Your task to perform on an android device: Open the stopwatch Image 0: 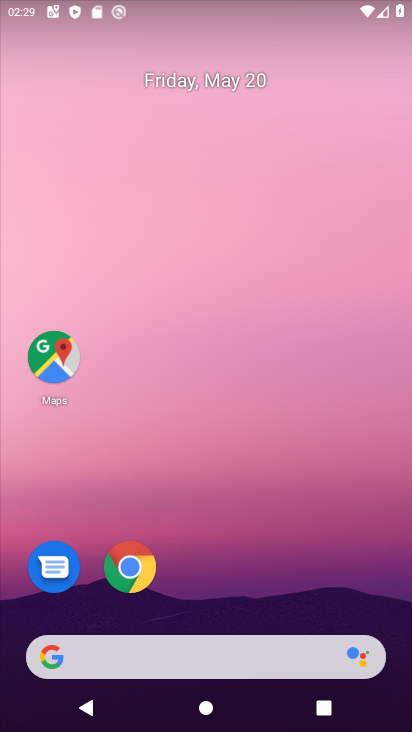
Step 0: drag from (224, 518) to (262, 14)
Your task to perform on an android device: Open the stopwatch Image 1: 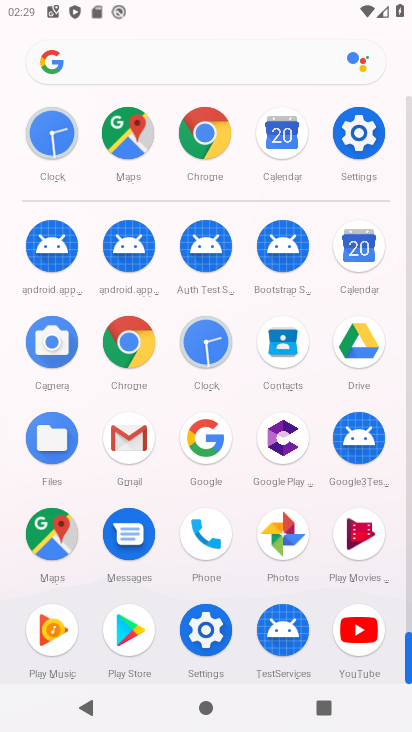
Step 1: drag from (11, 402) to (11, 232)
Your task to perform on an android device: Open the stopwatch Image 2: 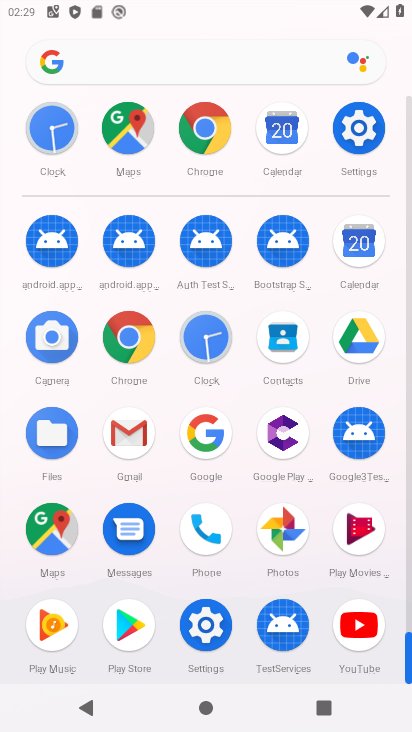
Step 2: click (201, 332)
Your task to perform on an android device: Open the stopwatch Image 3: 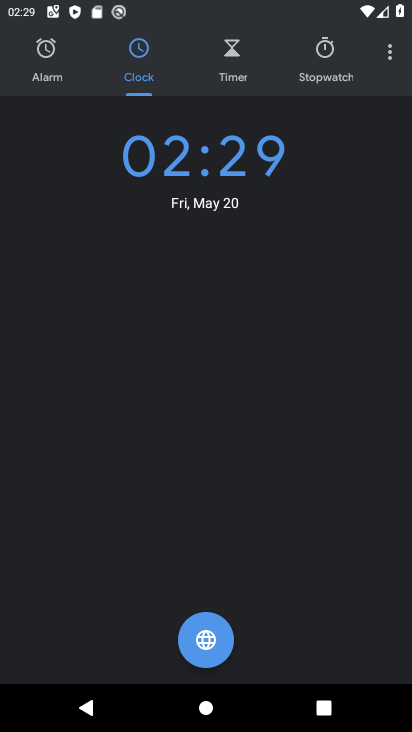
Step 3: click (326, 51)
Your task to perform on an android device: Open the stopwatch Image 4: 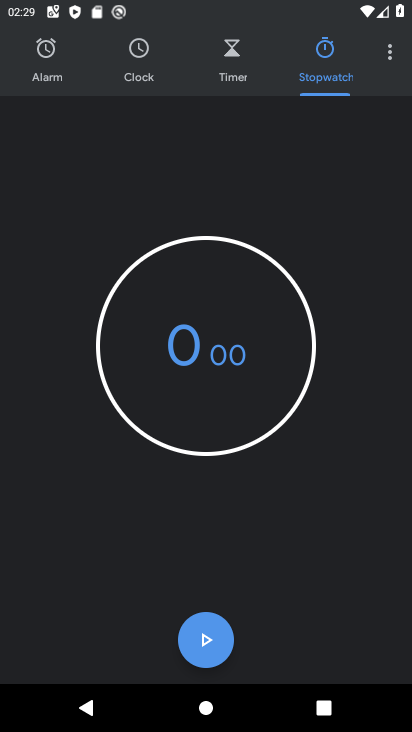
Step 4: task complete